Your task to perform on an android device: Open Reddit.com Image 0: 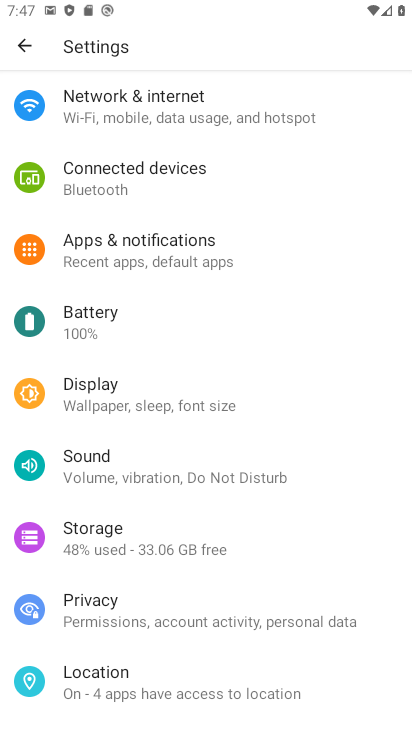
Step 0: press home button
Your task to perform on an android device: Open Reddit.com Image 1: 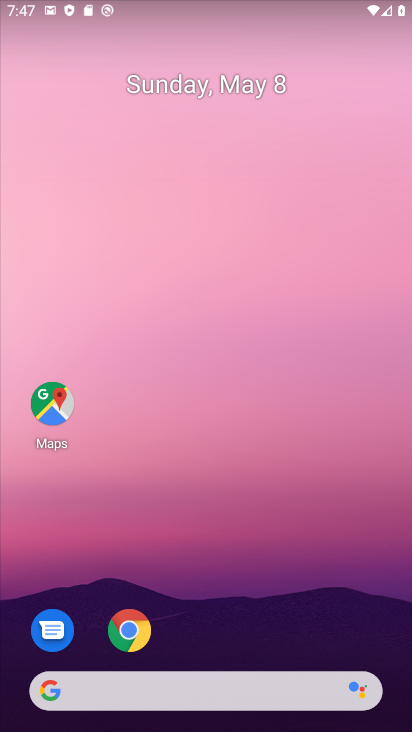
Step 1: click (134, 640)
Your task to perform on an android device: Open Reddit.com Image 2: 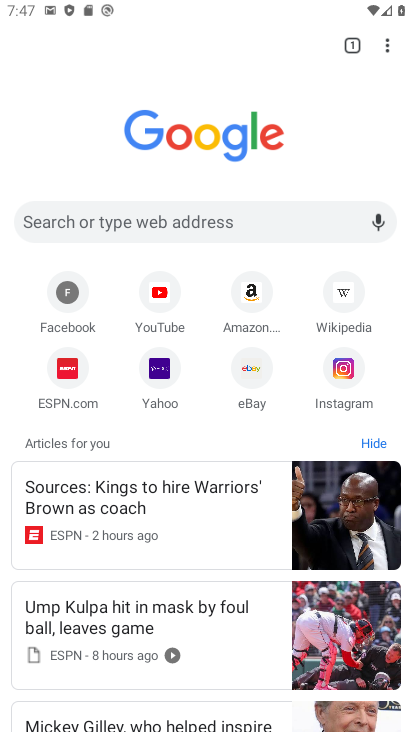
Step 2: click (199, 211)
Your task to perform on an android device: Open Reddit.com Image 3: 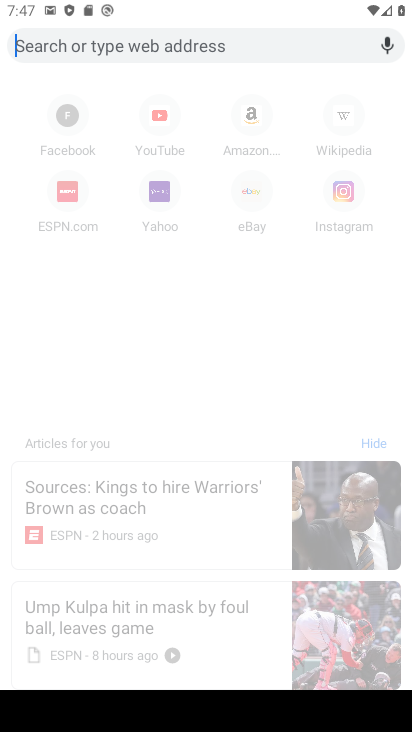
Step 3: type "reddit"
Your task to perform on an android device: Open Reddit.com Image 4: 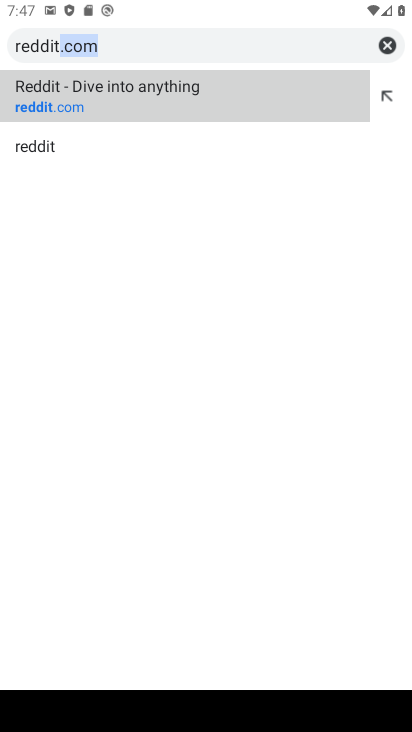
Step 4: click (54, 106)
Your task to perform on an android device: Open Reddit.com Image 5: 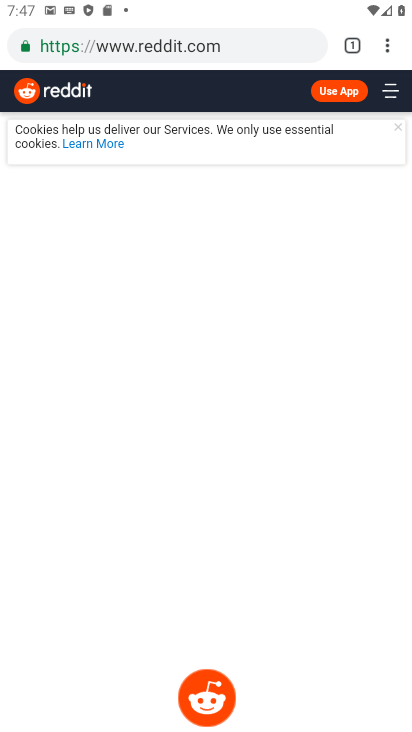
Step 5: task complete